Your task to perform on an android device: set the timer Image 0: 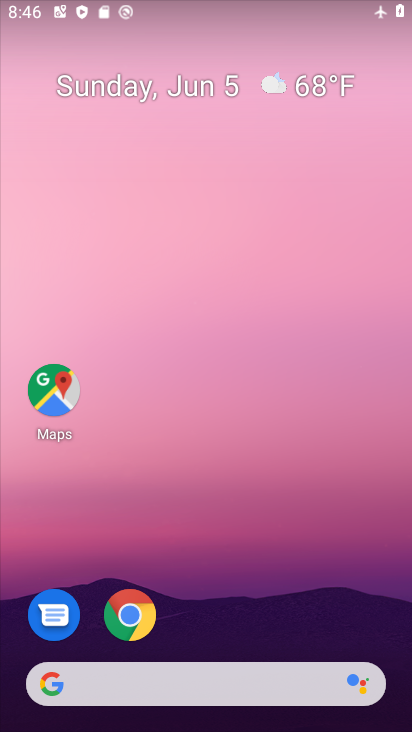
Step 0: drag from (253, 700) to (290, 54)
Your task to perform on an android device: set the timer Image 1: 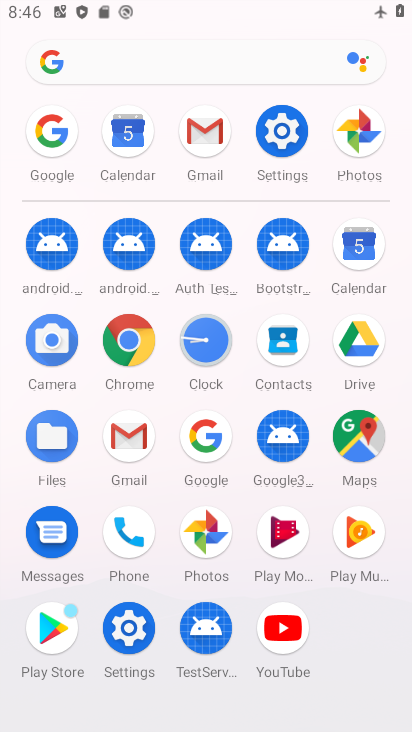
Step 1: click (201, 345)
Your task to perform on an android device: set the timer Image 2: 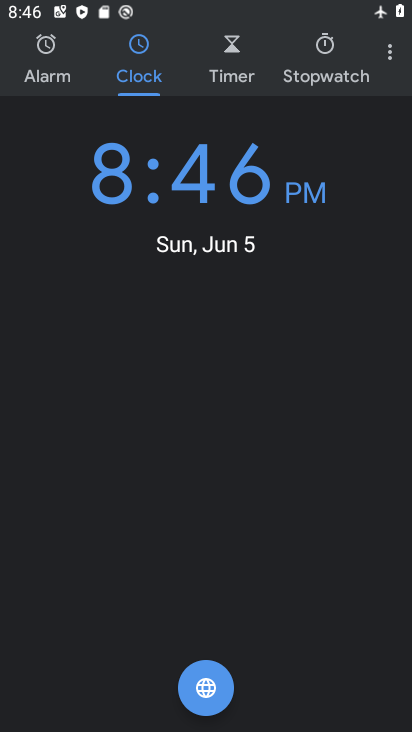
Step 2: click (243, 89)
Your task to perform on an android device: set the timer Image 3: 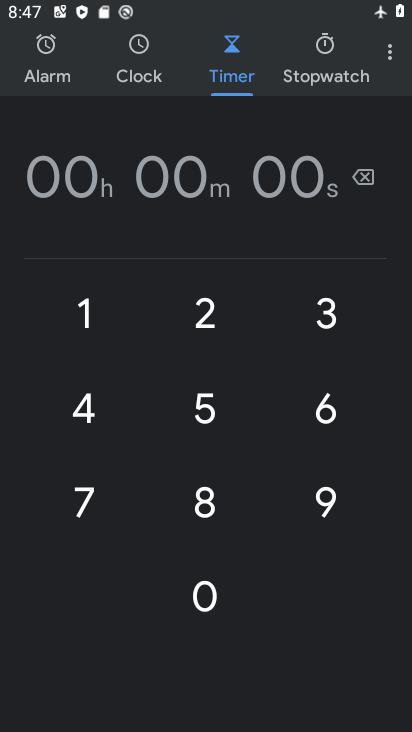
Step 3: click (106, 318)
Your task to perform on an android device: set the timer Image 4: 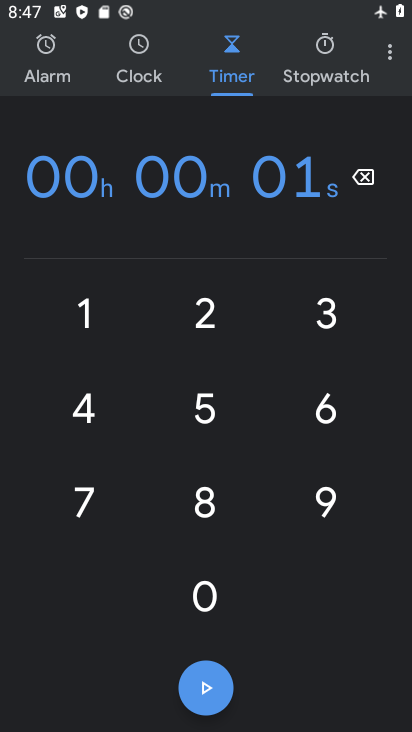
Step 4: click (206, 392)
Your task to perform on an android device: set the timer Image 5: 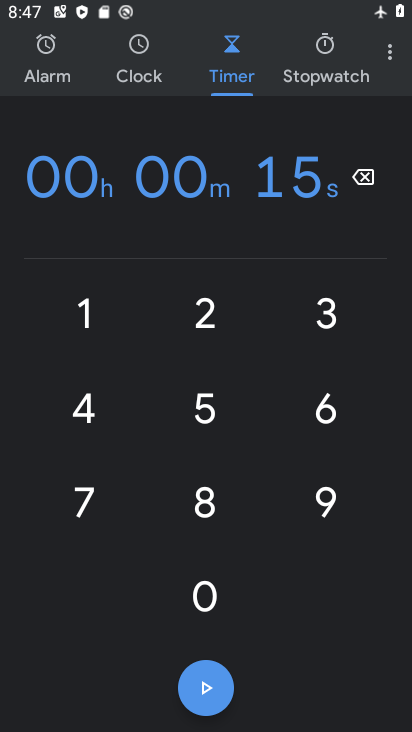
Step 5: click (331, 481)
Your task to perform on an android device: set the timer Image 6: 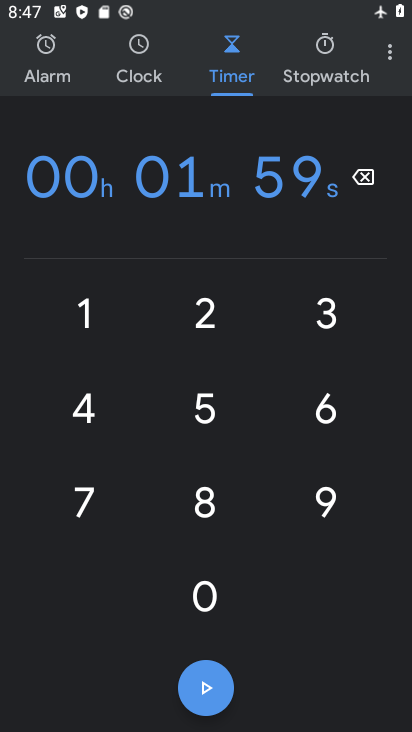
Step 6: click (336, 402)
Your task to perform on an android device: set the timer Image 7: 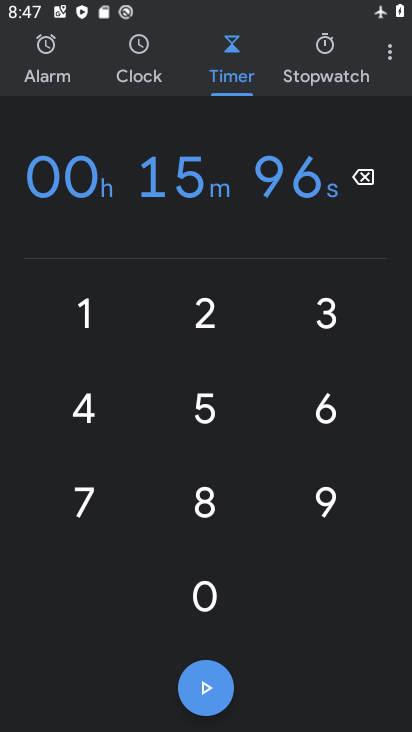
Step 7: click (204, 676)
Your task to perform on an android device: set the timer Image 8: 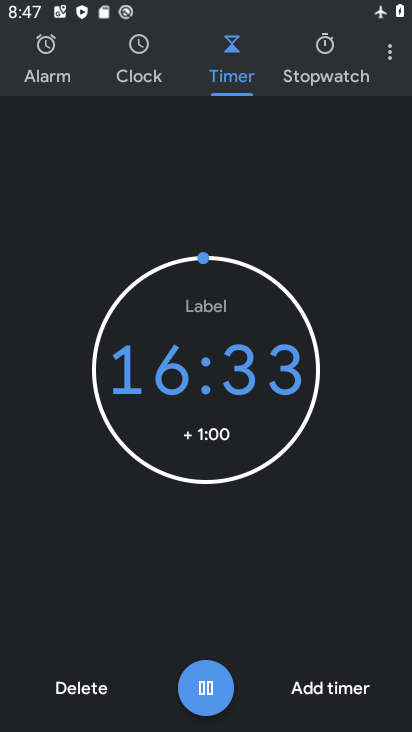
Step 8: task complete